Your task to perform on an android device: refresh tabs in the chrome app Image 0: 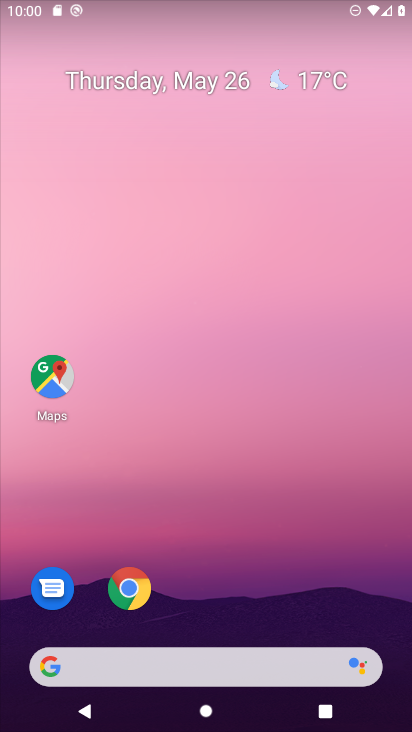
Step 0: click (131, 585)
Your task to perform on an android device: refresh tabs in the chrome app Image 1: 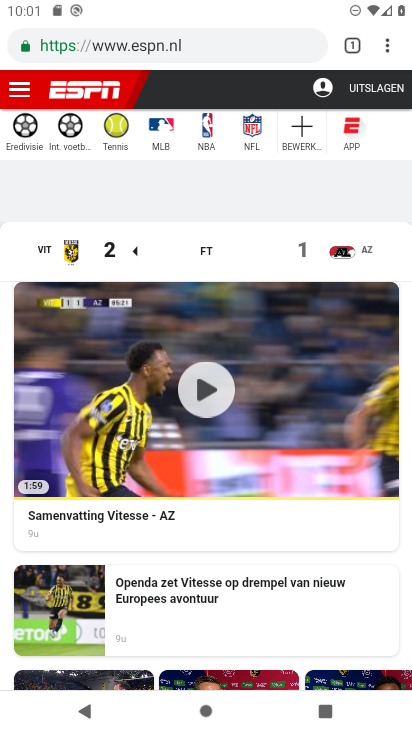
Step 1: click (386, 48)
Your task to perform on an android device: refresh tabs in the chrome app Image 2: 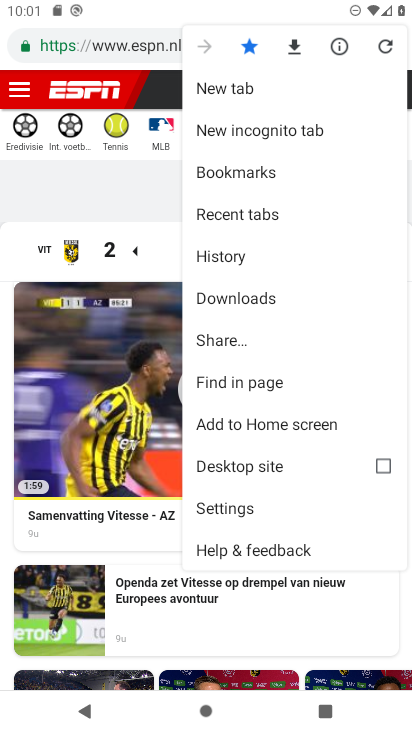
Step 2: click (384, 41)
Your task to perform on an android device: refresh tabs in the chrome app Image 3: 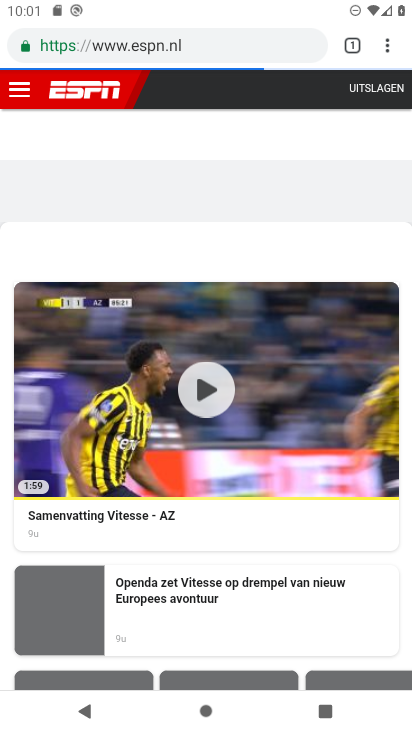
Step 3: task complete